Your task to perform on an android device: change text size in settings app Image 0: 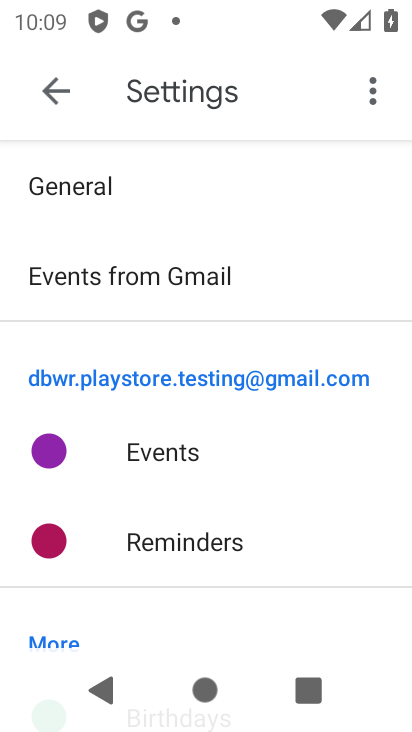
Step 0: press back button
Your task to perform on an android device: change text size in settings app Image 1: 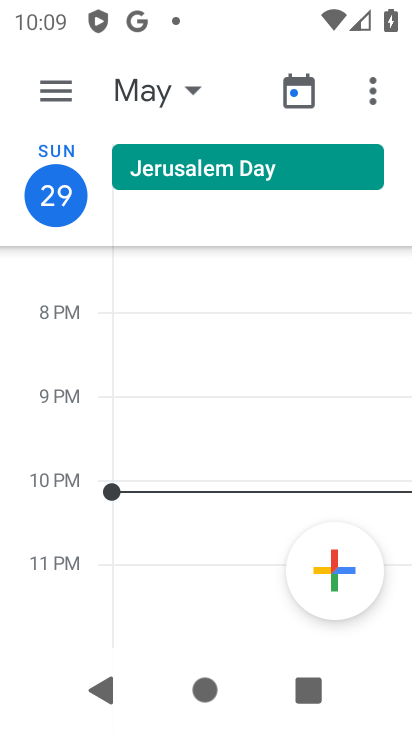
Step 1: press back button
Your task to perform on an android device: change text size in settings app Image 2: 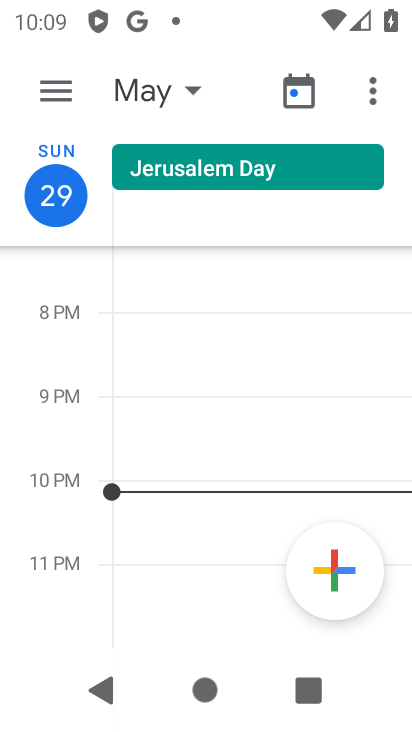
Step 2: press home button
Your task to perform on an android device: change text size in settings app Image 3: 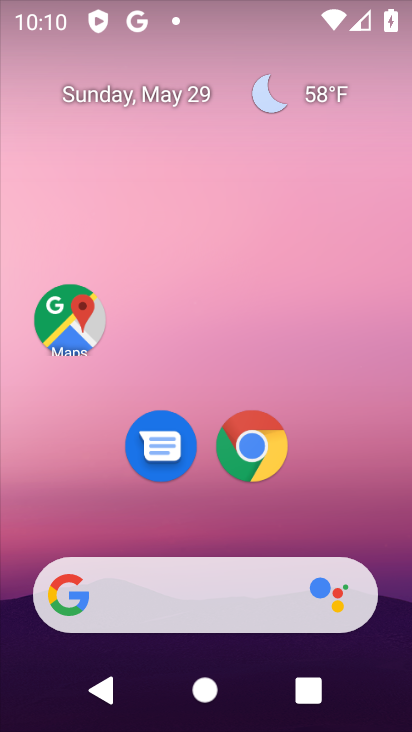
Step 3: drag from (340, 548) to (217, 64)
Your task to perform on an android device: change text size in settings app Image 4: 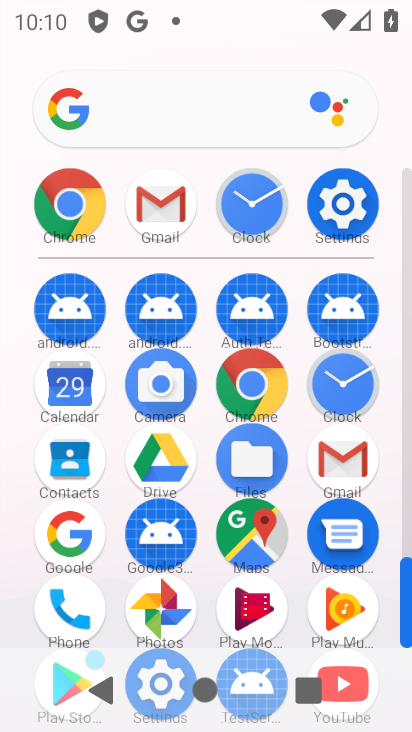
Step 4: click (339, 202)
Your task to perform on an android device: change text size in settings app Image 5: 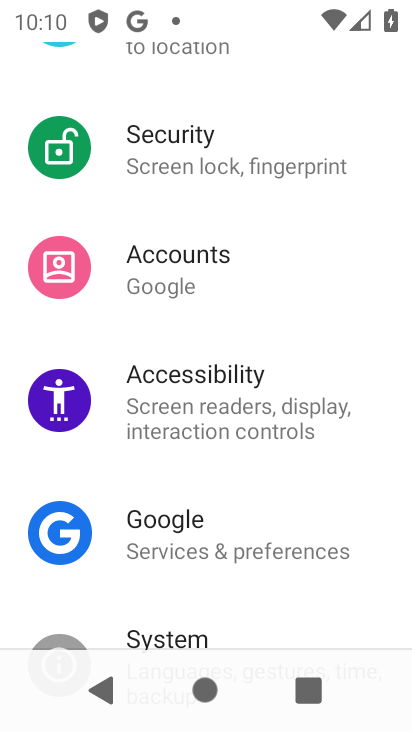
Step 5: drag from (313, 134) to (275, 604)
Your task to perform on an android device: change text size in settings app Image 6: 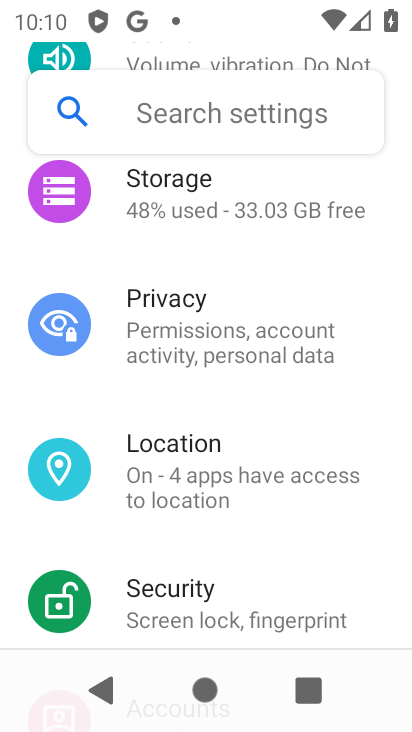
Step 6: drag from (301, 197) to (285, 612)
Your task to perform on an android device: change text size in settings app Image 7: 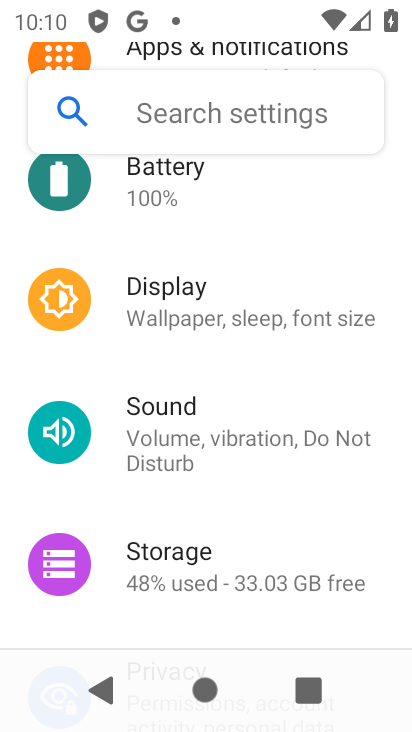
Step 7: click (272, 286)
Your task to perform on an android device: change text size in settings app Image 8: 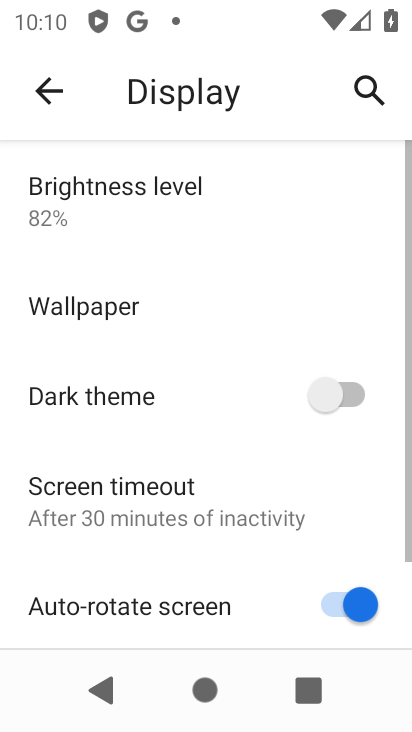
Step 8: drag from (222, 556) to (203, 147)
Your task to perform on an android device: change text size in settings app Image 9: 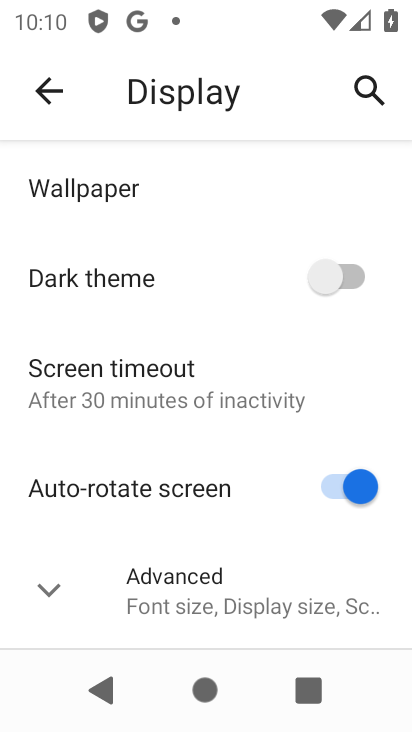
Step 9: click (49, 585)
Your task to perform on an android device: change text size in settings app Image 10: 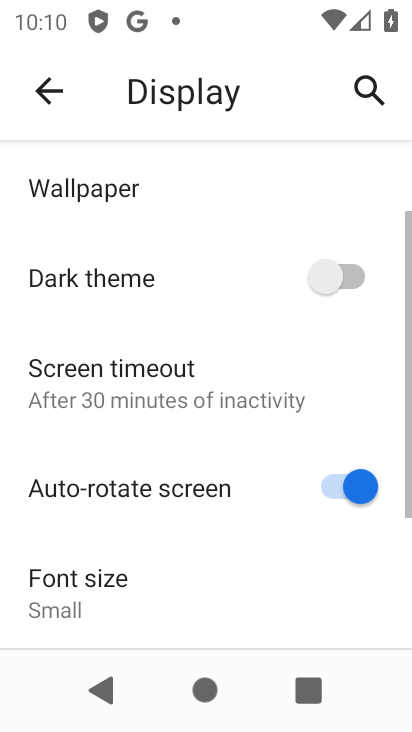
Step 10: drag from (207, 597) to (218, 207)
Your task to perform on an android device: change text size in settings app Image 11: 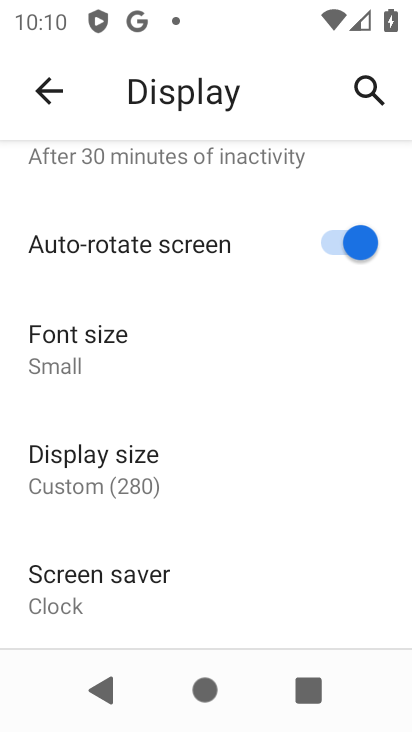
Step 11: click (129, 346)
Your task to perform on an android device: change text size in settings app Image 12: 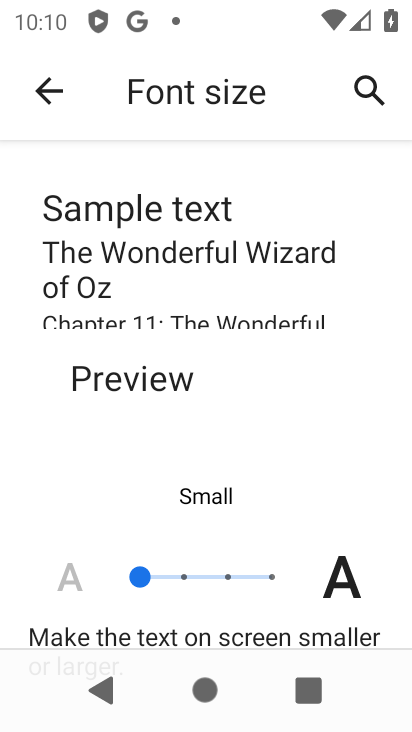
Step 12: click (227, 571)
Your task to perform on an android device: change text size in settings app Image 13: 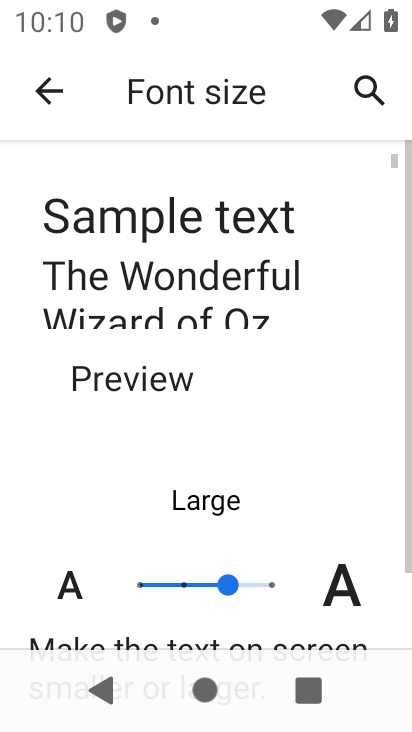
Step 13: task complete